Your task to perform on an android device: Empty the shopping cart on bestbuy. Image 0: 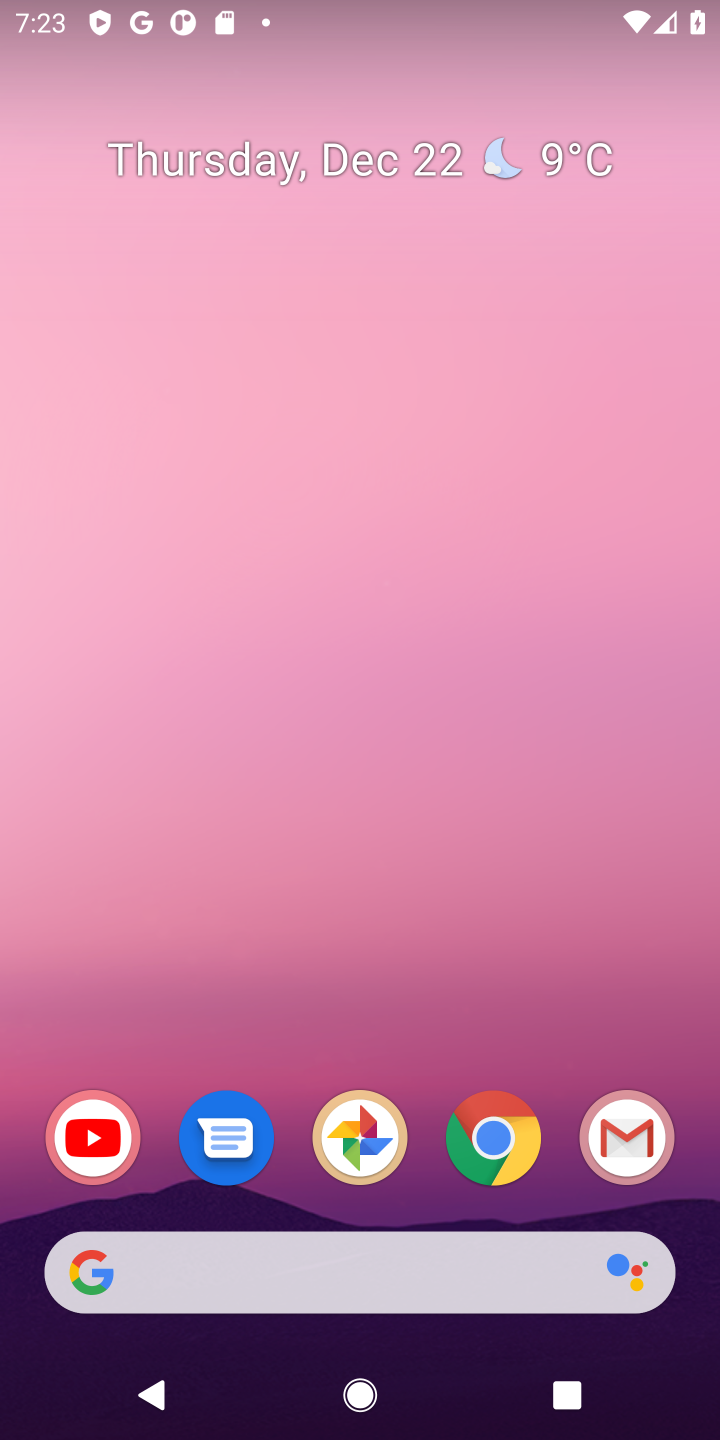
Step 0: click (474, 1132)
Your task to perform on an android device: Empty the shopping cart on bestbuy. Image 1: 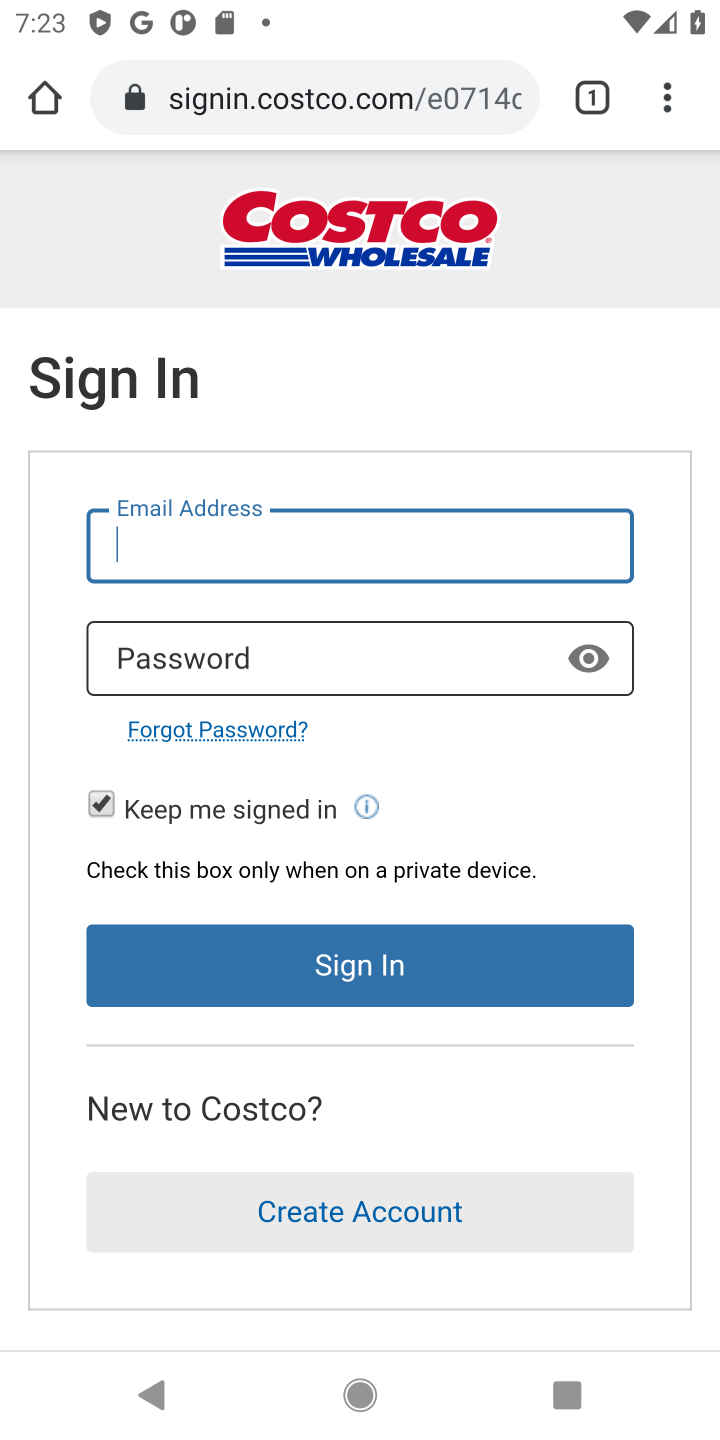
Step 1: click (320, 101)
Your task to perform on an android device: Empty the shopping cart on bestbuy. Image 2: 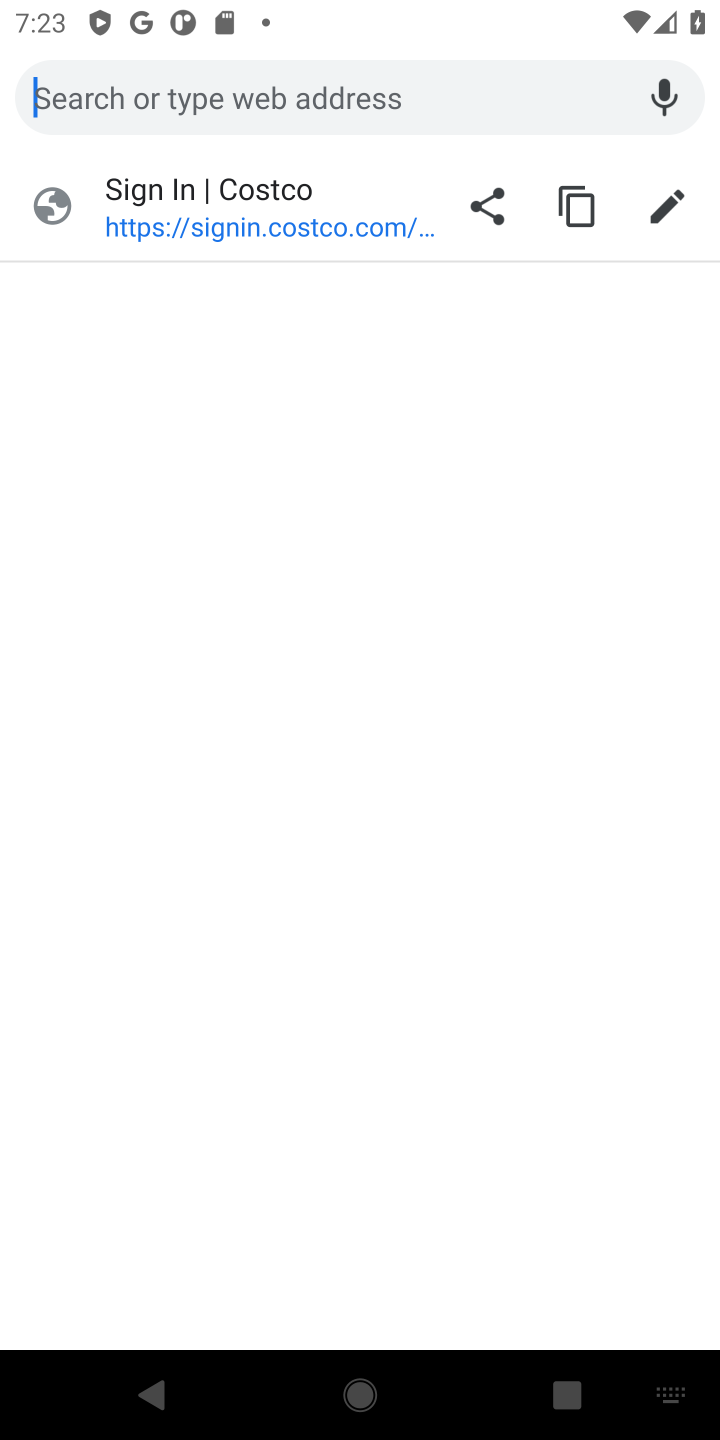
Step 2: type "bestbuy"
Your task to perform on an android device: Empty the shopping cart on bestbuy. Image 3: 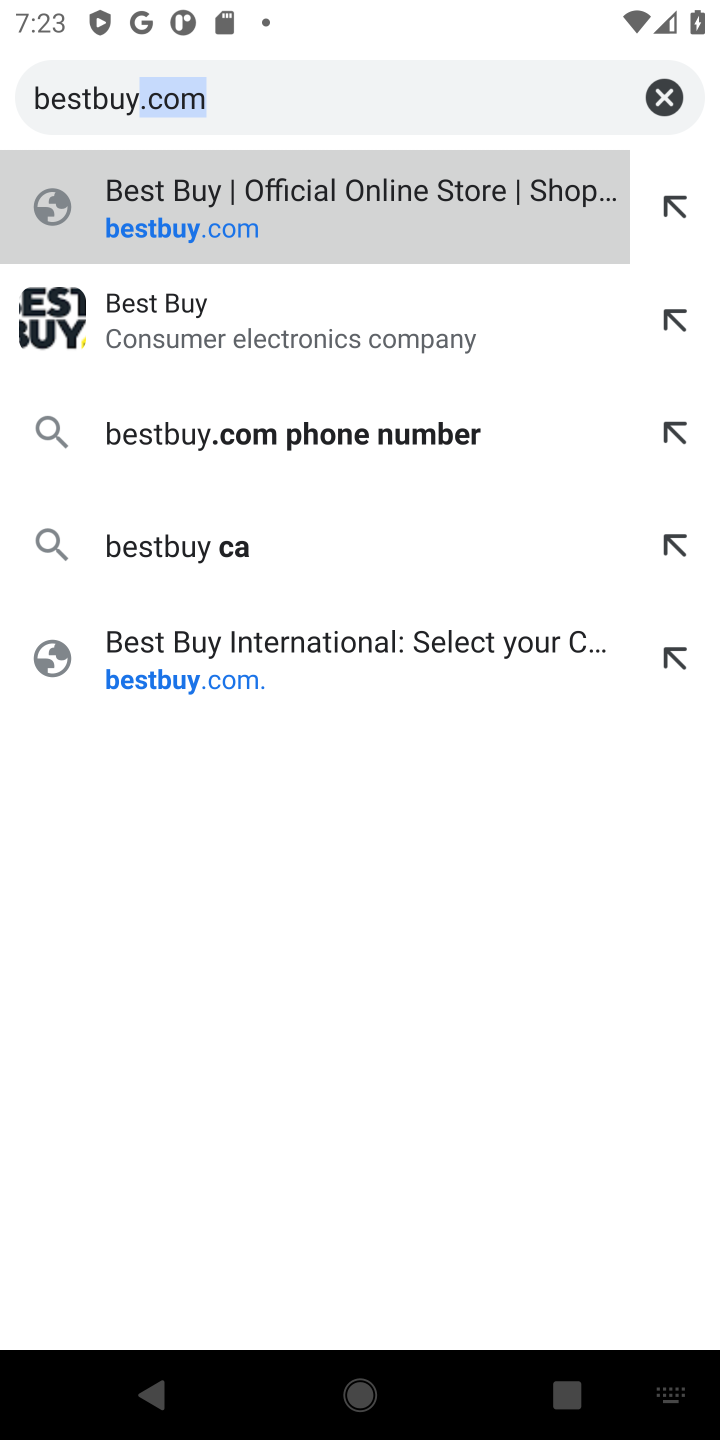
Step 3: click (401, 86)
Your task to perform on an android device: Empty the shopping cart on bestbuy. Image 4: 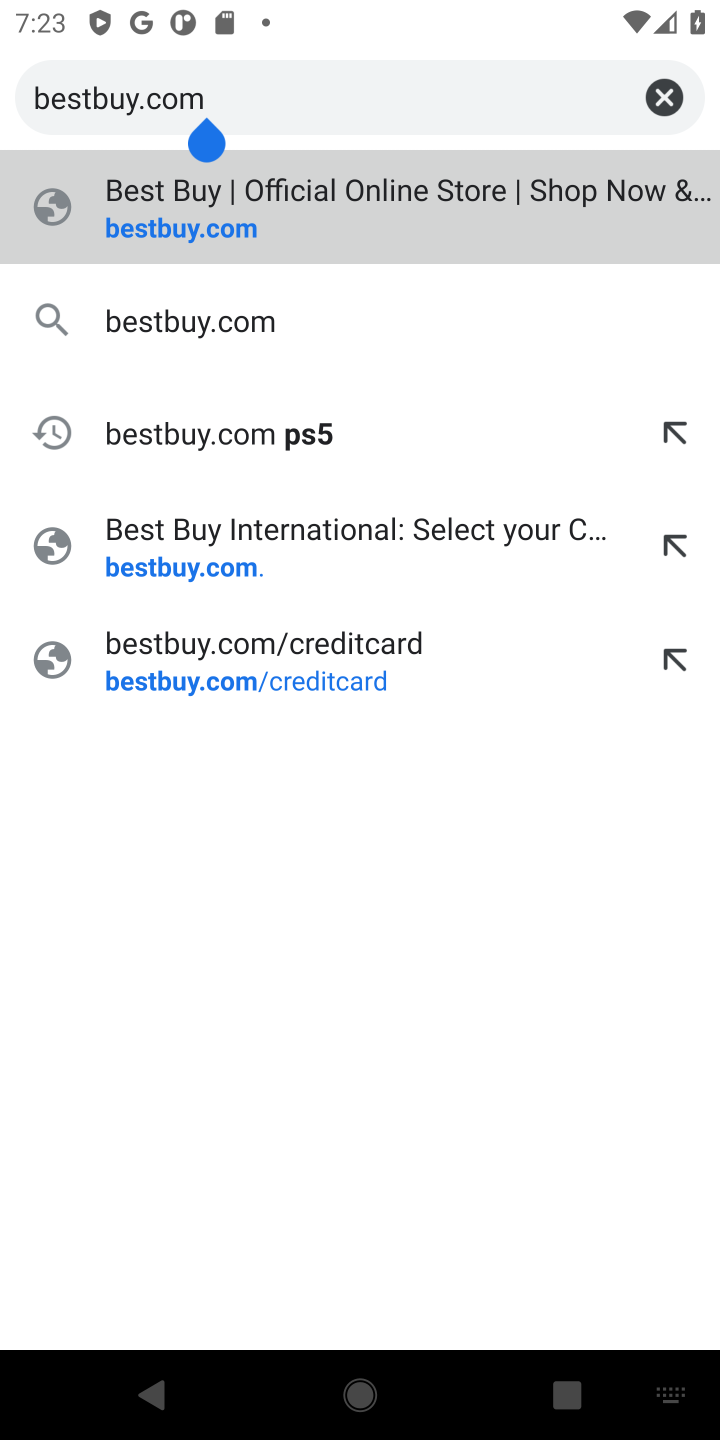
Step 4: click (223, 330)
Your task to perform on an android device: Empty the shopping cart on bestbuy. Image 5: 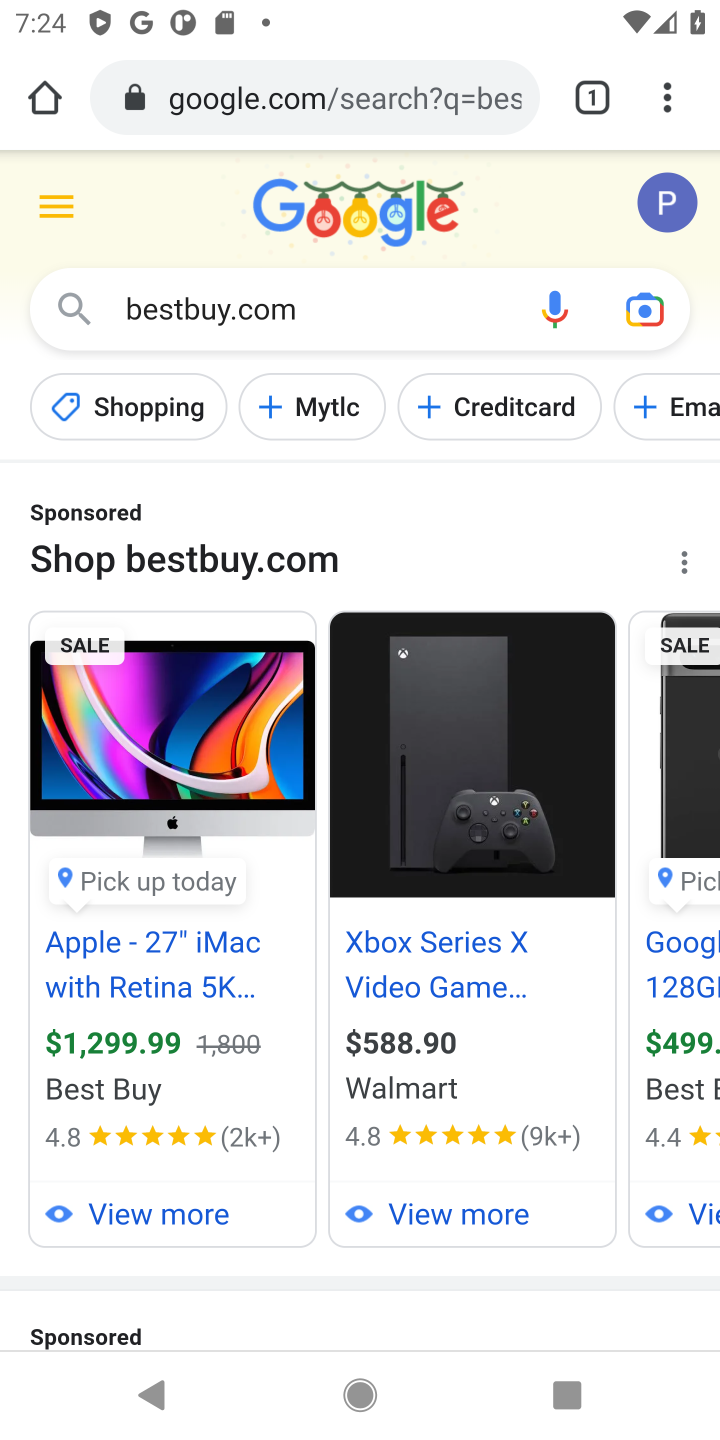
Step 5: drag from (170, 1053) to (378, 455)
Your task to perform on an android device: Empty the shopping cart on bestbuy. Image 6: 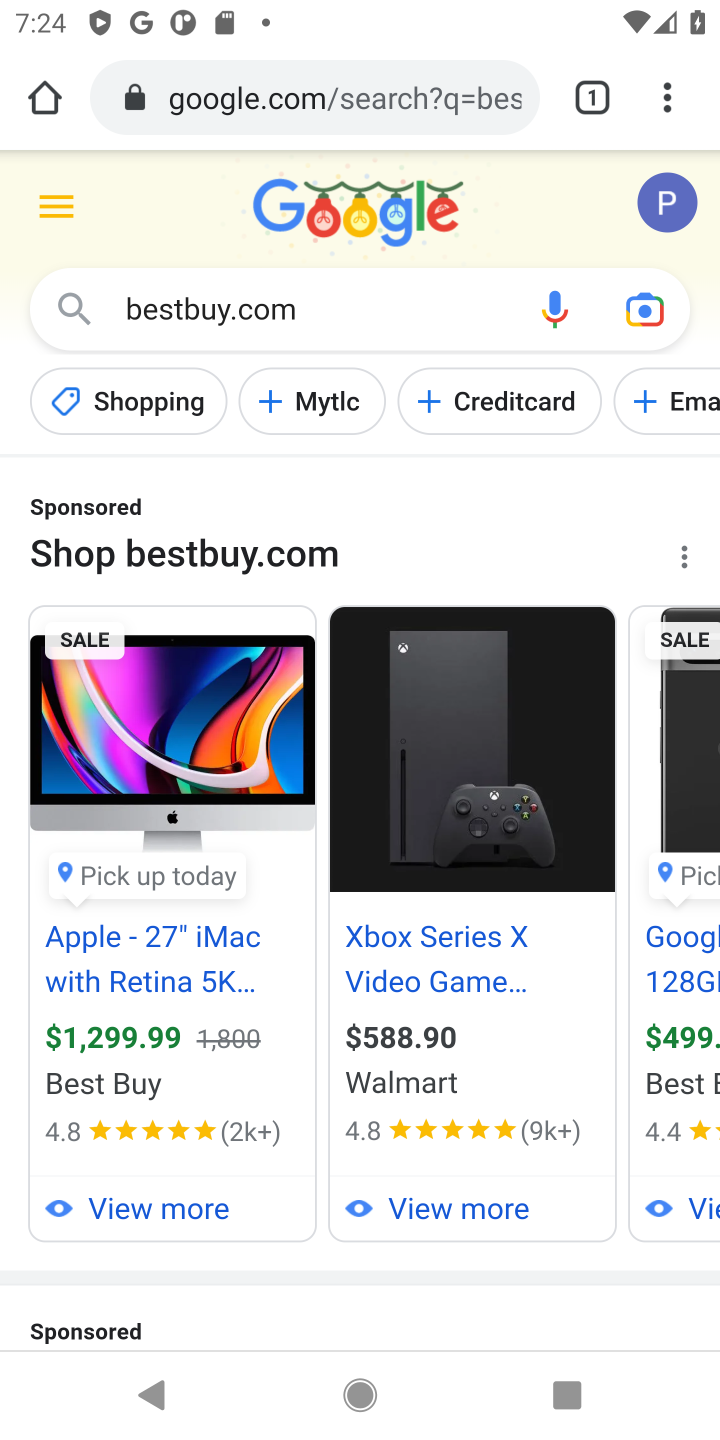
Step 6: drag from (204, 1151) to (368, 615)
Your task to perform on an android device: Empty the shopping cart on bestbuy. Image 7: 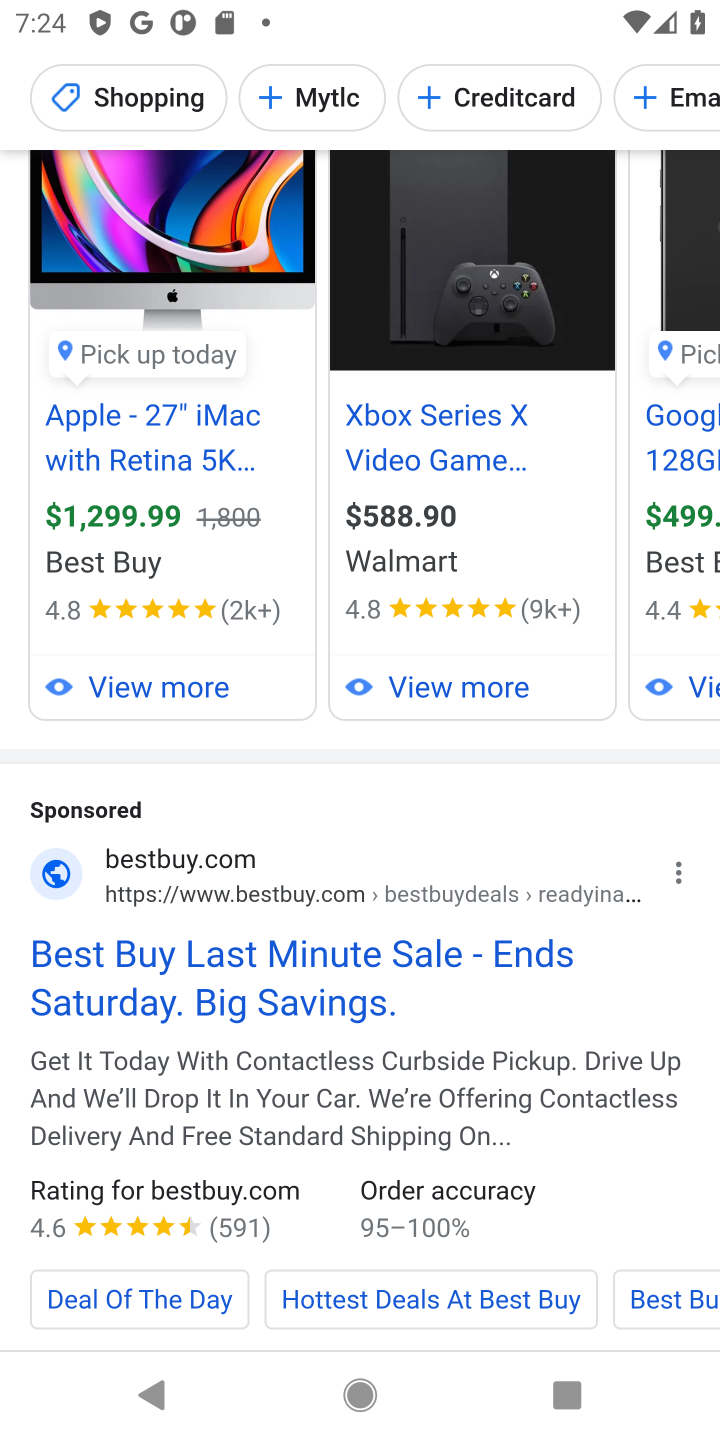
Step 7: click (208, 862)
Your task to perform on an android device: Empty the shopping cart on bestbuy. Image 8: 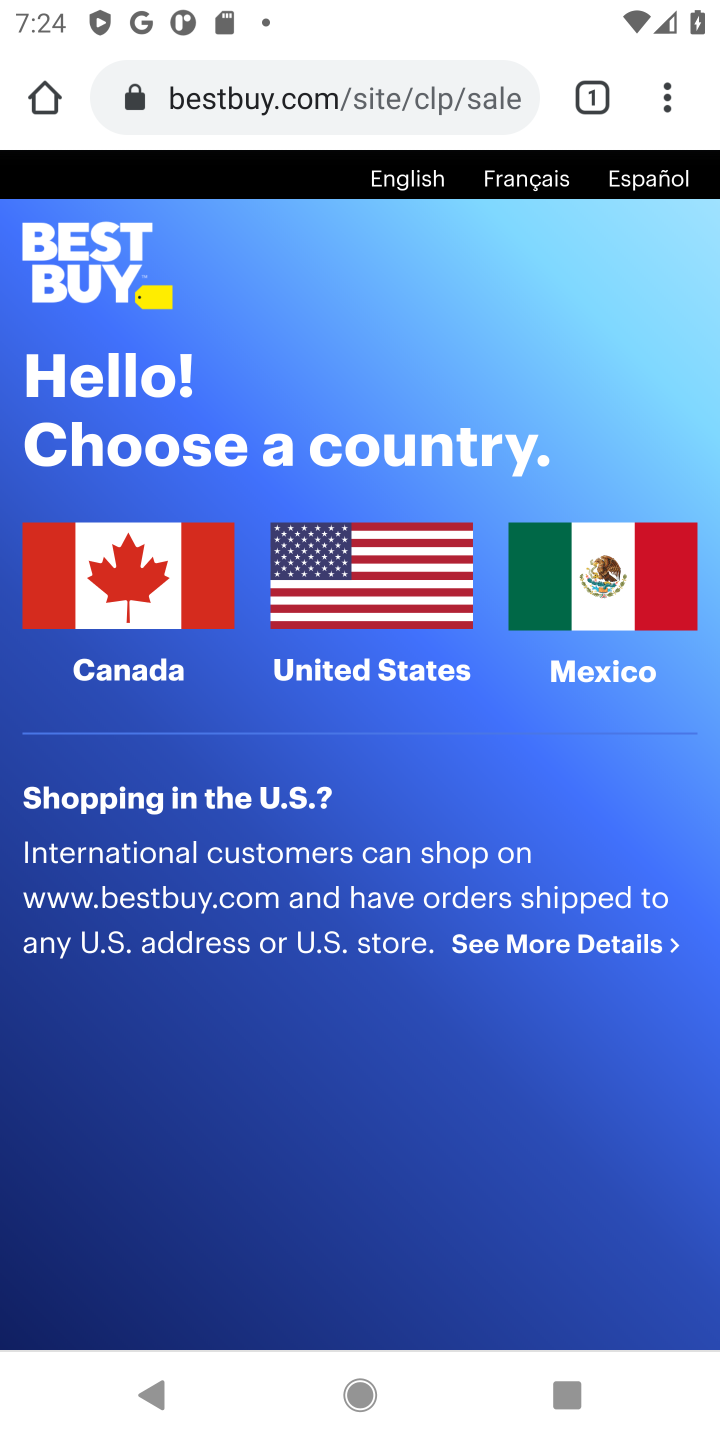
Step 8: click (381, 587)
Your task to perform on an android device: Empty the shopping cart on bestbuy. Image 9: 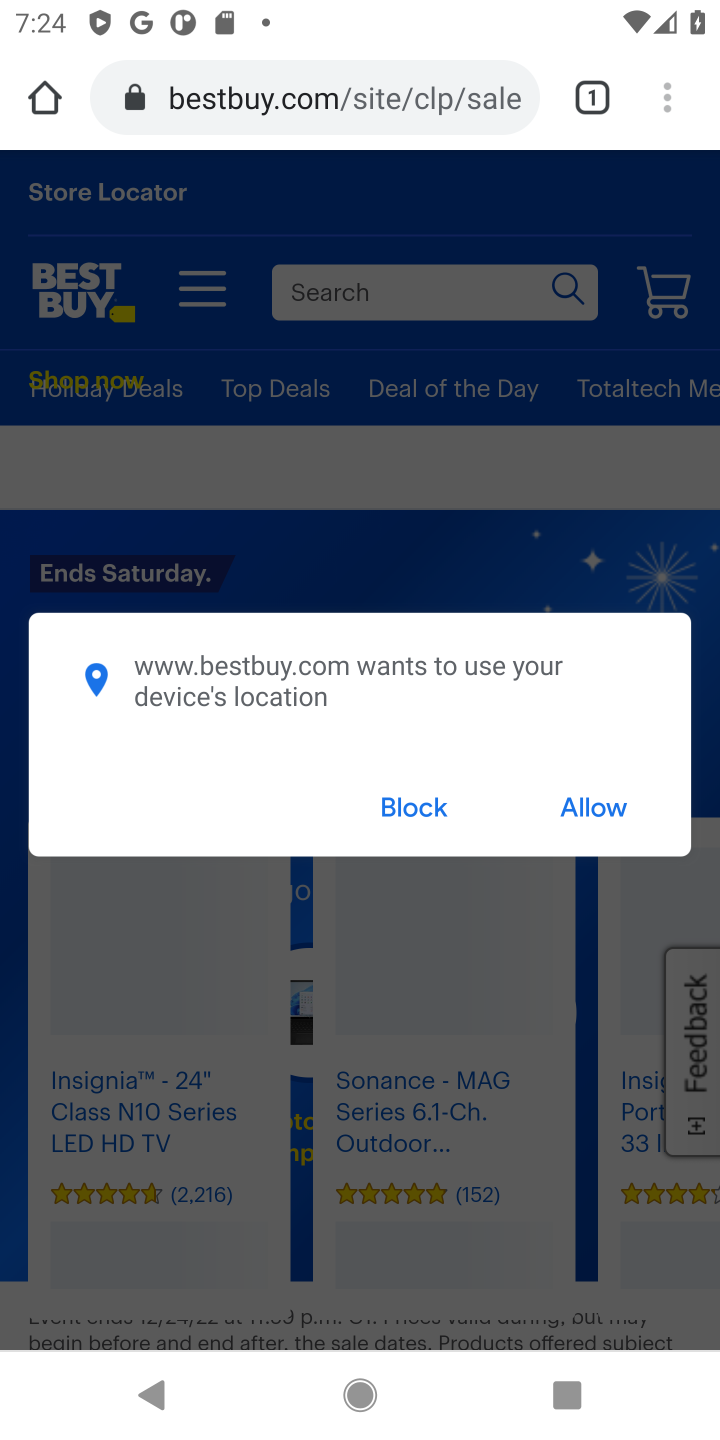
Step 9: click (421, 807)
Your task to perform on an android device: Empty the shopping cart on bestbuy. Image 10: 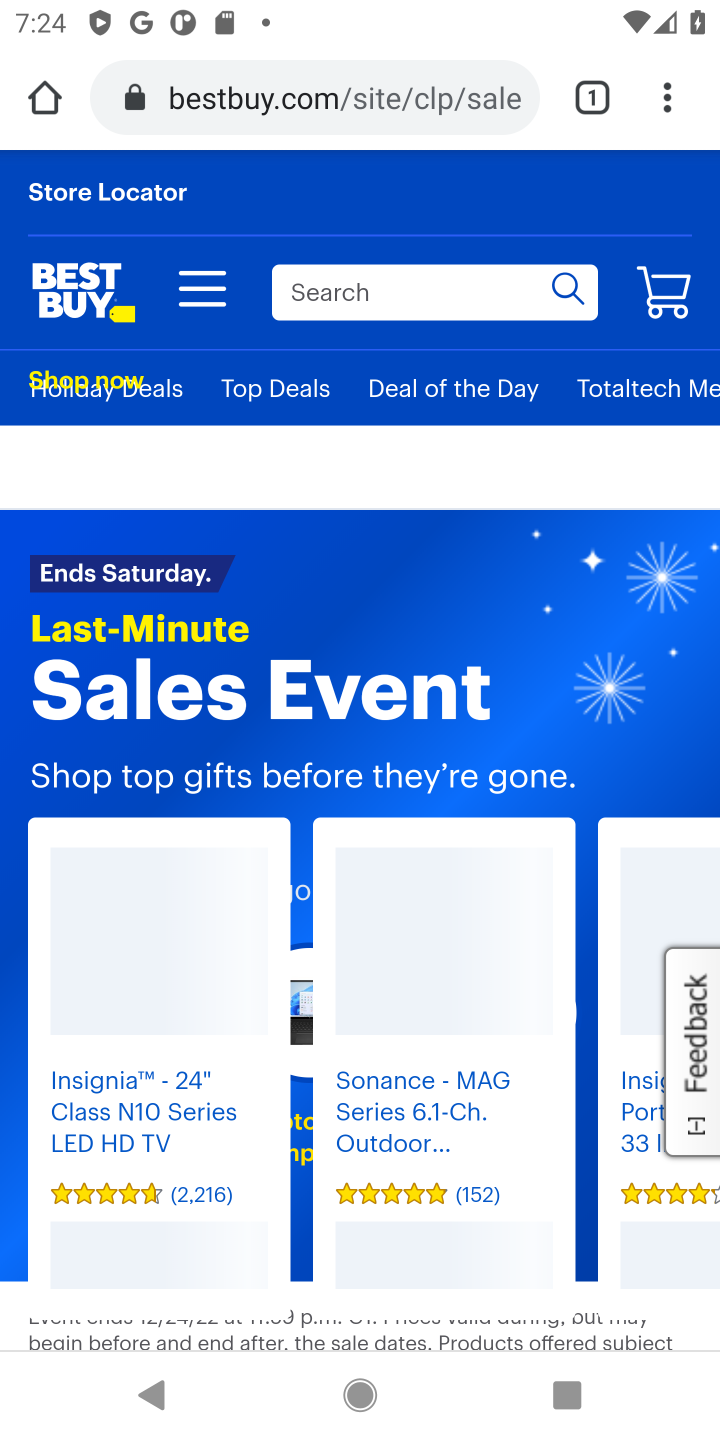
Step 10: click (644, 304)
Your task to perform on an android device: Empty the shopping cart on bestbuy. Image 11: 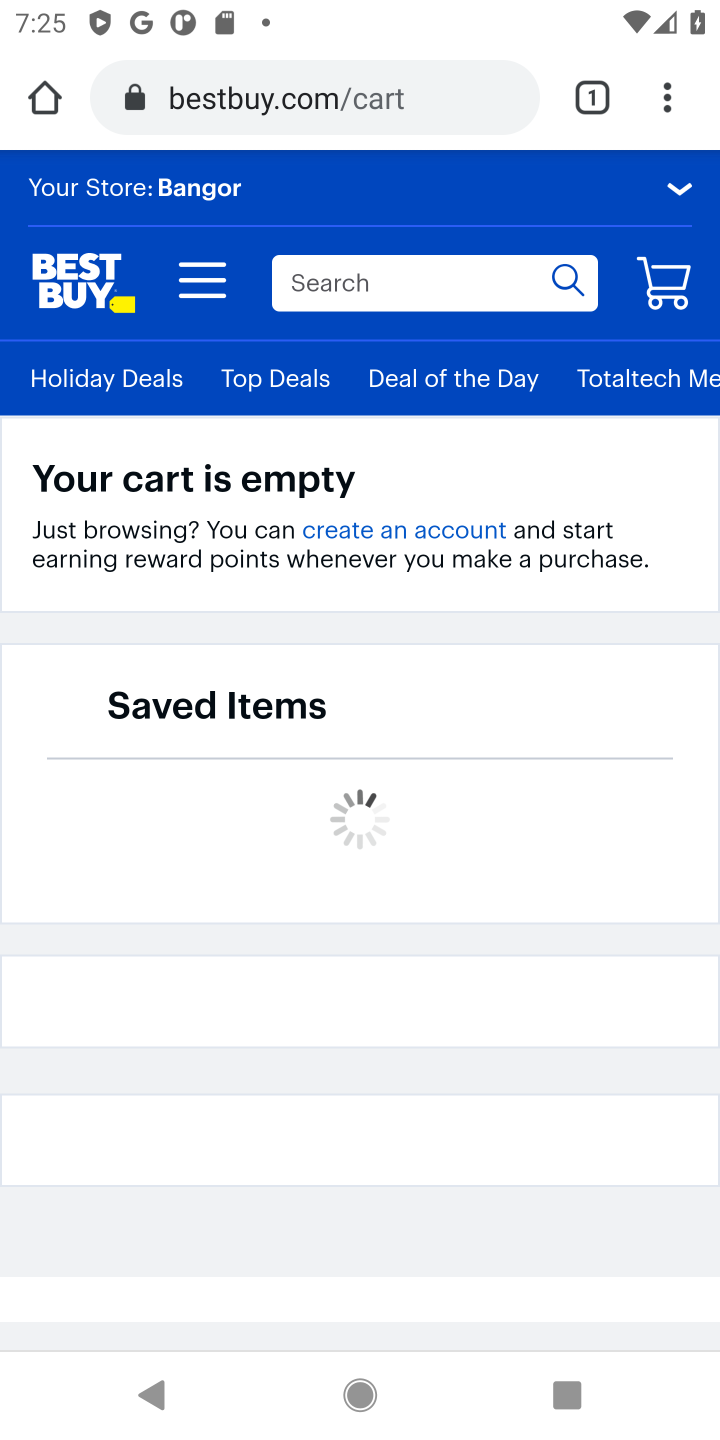
Step 11: task complete